Your task to perform on an android device: Go to accessibility settings Image 0: 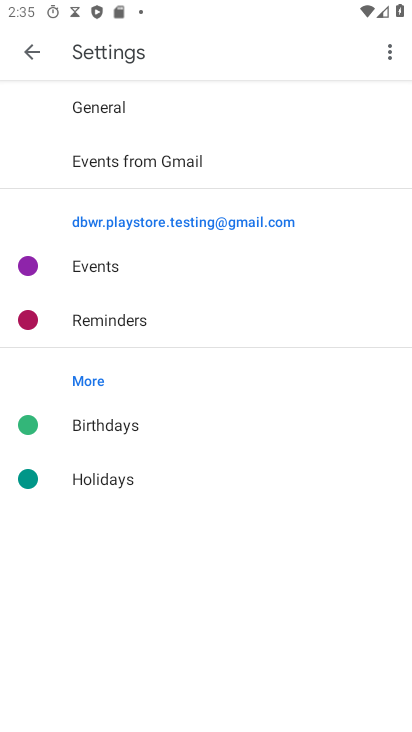
Step 0: press home button
Your task to perform on an android device: Go to accessibility settings Image 1: 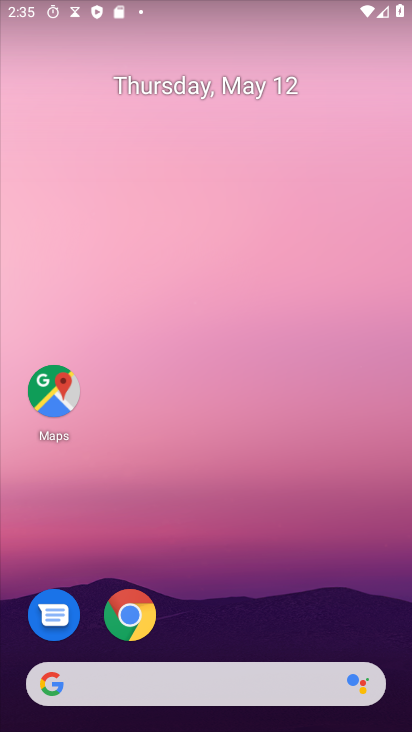
Step 1: drag from (10, 667) to (199, 129)
Your task to perform on an android device: Go to accessibility settings Image 2: 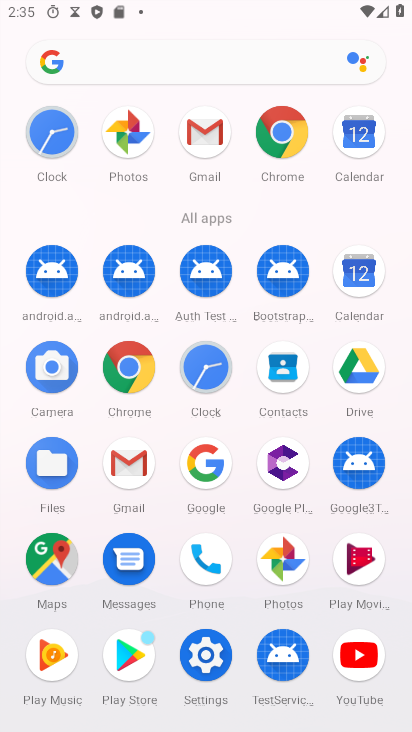
Step 2: click (222, 669)
Your task to perform on an android device: Go to accessibility settings Image 3: 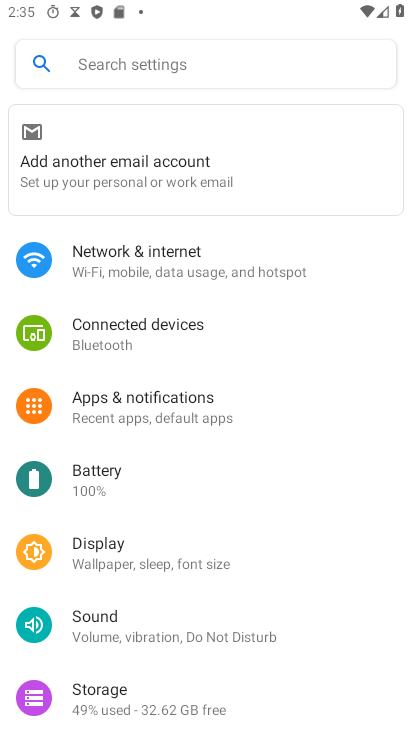
Step 3: drag from (156, 655) to (236, 259)
Your task to perform on an android device: Go to accessibility settings Image 4: 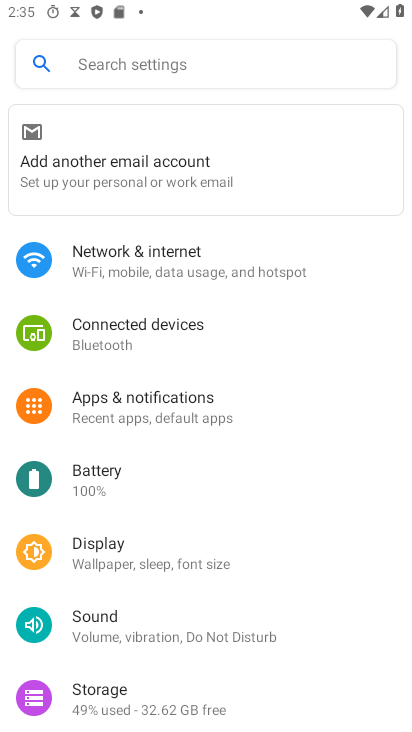
Step 4: drag from (56, 721) to (282, 265)
Your task to perform on an android device: Go to accessibility settings Image 5: 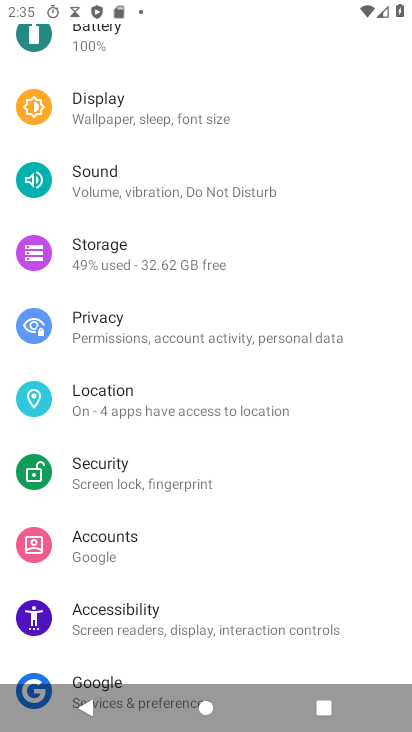
Step 5: click (144, 616)
Your task to perform on an android device: Go to accessibility settings Image 6: 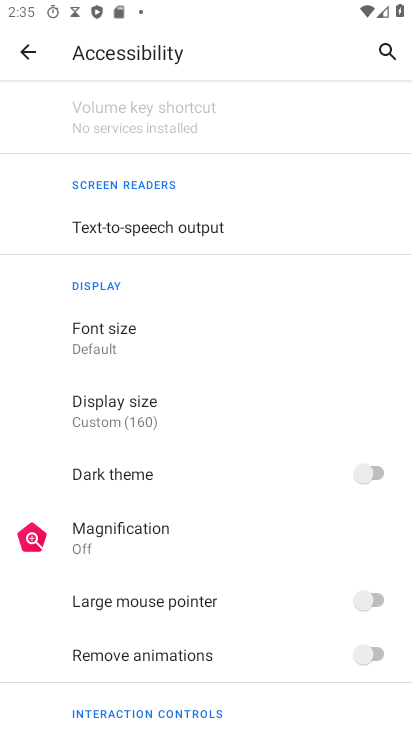
Step 6: task complete